Your task to perform on an android device: Search for macbook pro 13 inch on bestbuy.com, select the first entry, add it to the cart, then select checkout. Image 0: 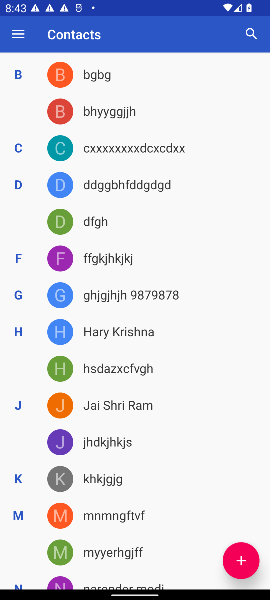
Step 0: press home button
Your task to perform on an android device: Search for macbook pro 13 inch on bestbuy.com, select the first entry, add it to the cart, then select checkout. Image 1: 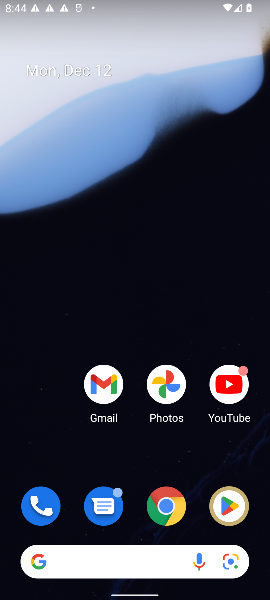
Step 1: click (83, 572)
Your task to perform on an android device: Search for macbook pro 13 inch on bestbuy.com, select the first entry, add it to the cart, then select checkout. Image 2: 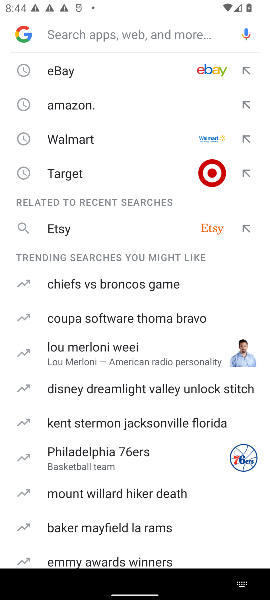
Step 2: type "bestbuy"
Your task to perform on an android device: Search for macbook pro 13 inch on bestbuy.com, select the first entry, add it to the cart, then select checkout. Image 3: 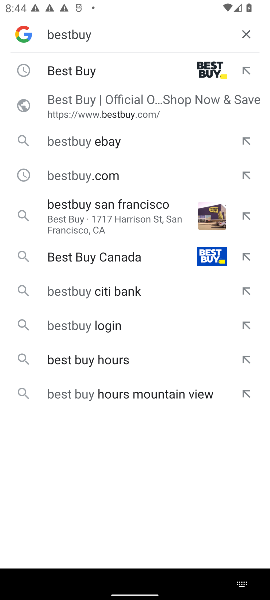
Step 3: click (97, 60)
Your task to perform on an android device: Search for macbook pro 13 inch on bestbuy.com, select the first entry, add it to the cart, then select checkout. Image 4: 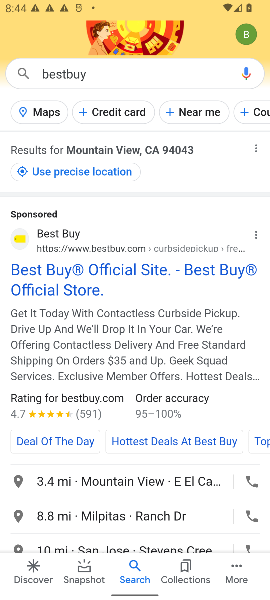
Step 4: click (27, 274)
Your task to perform on an android device: Search for macbook pro 13 inch on bestbuy.com, select the first entry, add it to the cart, then select checkout. Image 5: 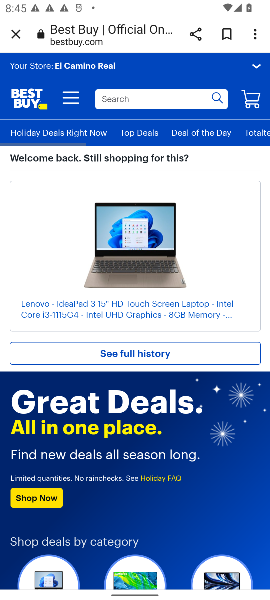
Step 5: click (165, 106)
Your task to perform on an android device: Search for macbook pro 13 inch on bestbuy.com, select the first entry, add it to the cart, then select checkout. Image 6: 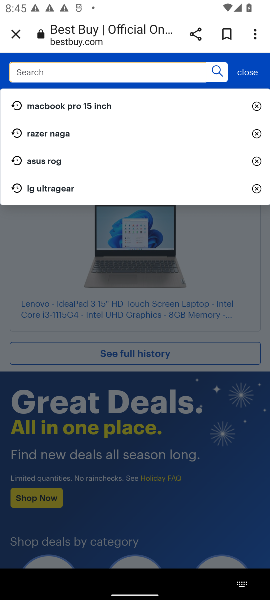
Step 6: type "macbook pro 13"
Your task to perform on an android device: Search for macbook pro 13 inch on bestbuy.com, select the first entry, add it to the cart, then select checkout. Image 7: 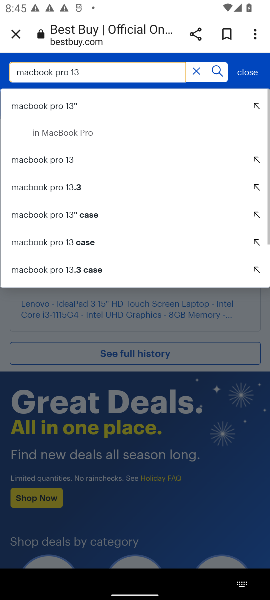
Step 7: click (49, 107)
Your task to perform on an android device: Search for macbook pro 13 inch on bestbuy.com, select the first entry, add it to the cart, then select checkout. Image 8: 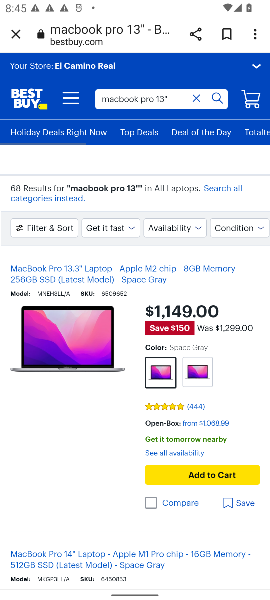
Step 8: click (222, 480)
Your task to perform on an android device: Search for macbook pro 13 inch on bestbuy.com, select the first entry, add it to the cart, then select checkout. Image 9: 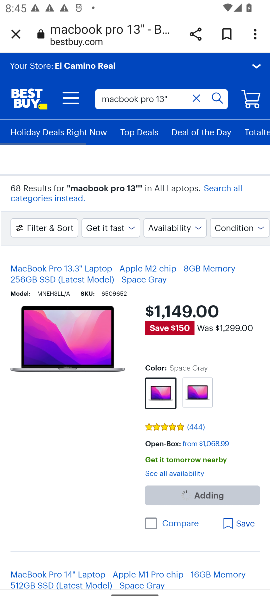
Step 9: task complete